Your task to perform on an android device: delete browsing data in the chrome app Image 0: 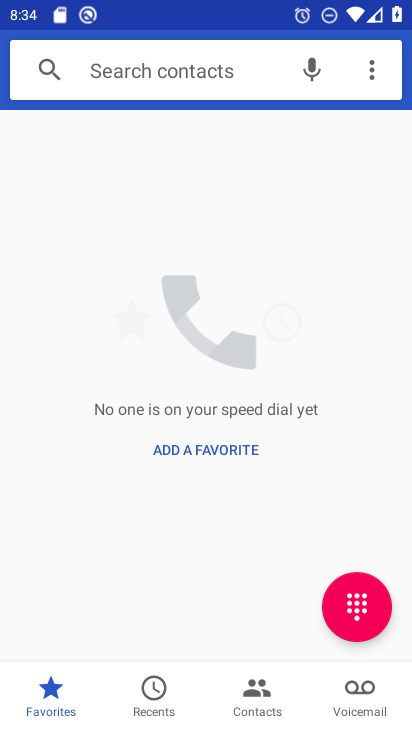
Step 0: press home button
Your task to perform on an android device: delete browsing data in the chrome app Image 1: 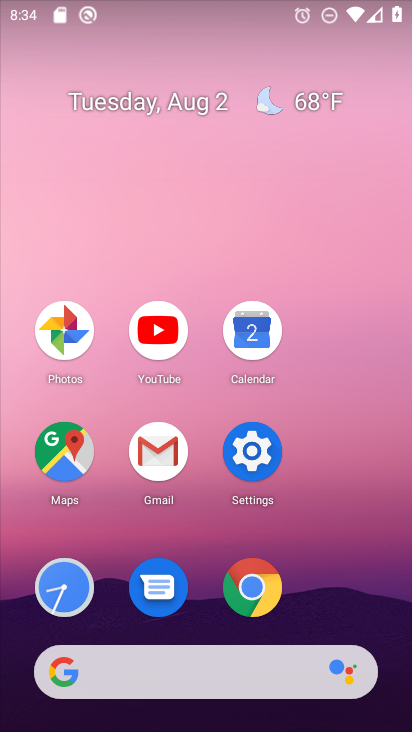
Step 1: click (255, 586)
Your task to perform on an android device: delete browsing data in the chrome app Image 2: 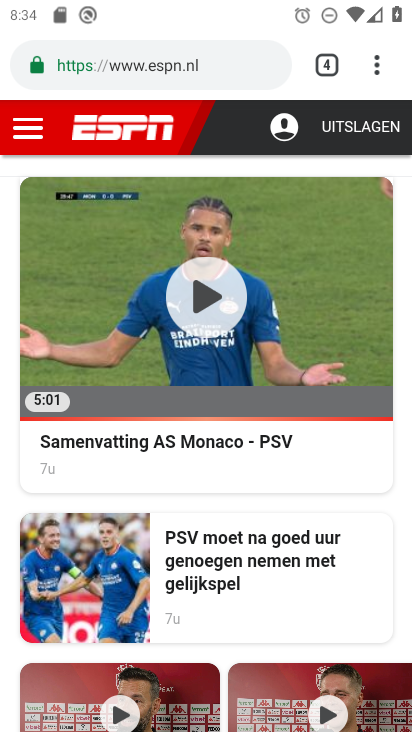
Step 2: click (374, 62)
Your task to perform on an android device: delete browsing data in the chrome app Image 3: 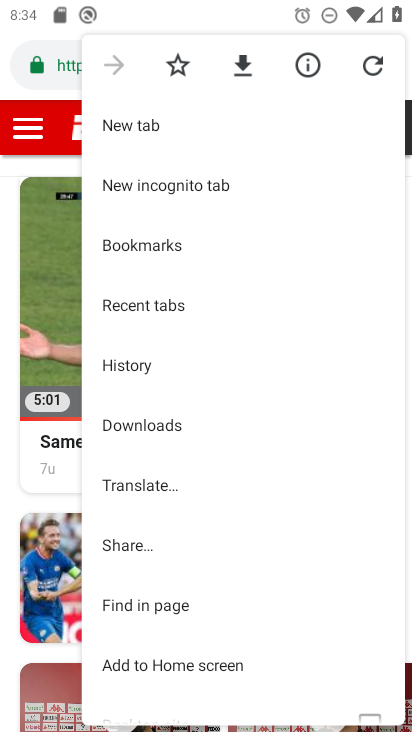
Step 3: click (125, 358)
Your task to perform on an android device: delete browsing data in the chrome app Image 4: 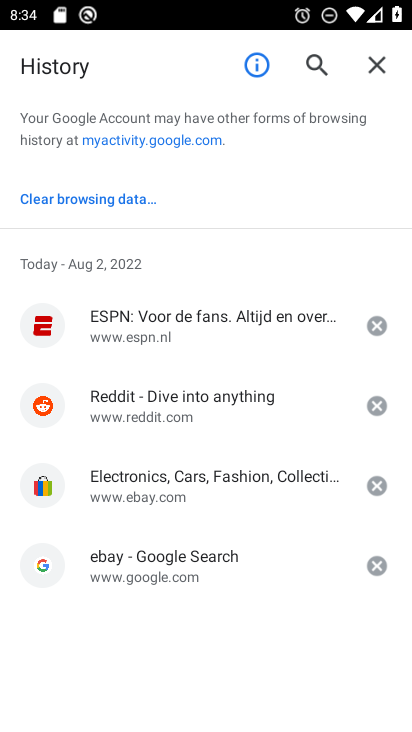
Step 4: click (100, 191)
Your task to perform on an android device: delete browsing data in the chrome app Image 5: 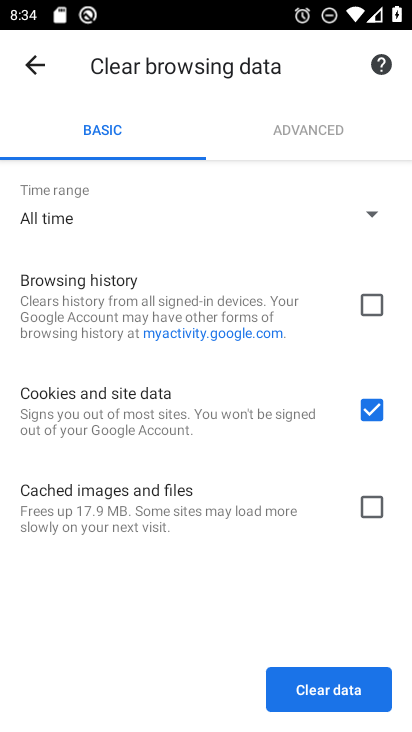
Step 5: click (365, 306)
Your task to perform on an android device: delete browsing data in the chrome app Image 6: 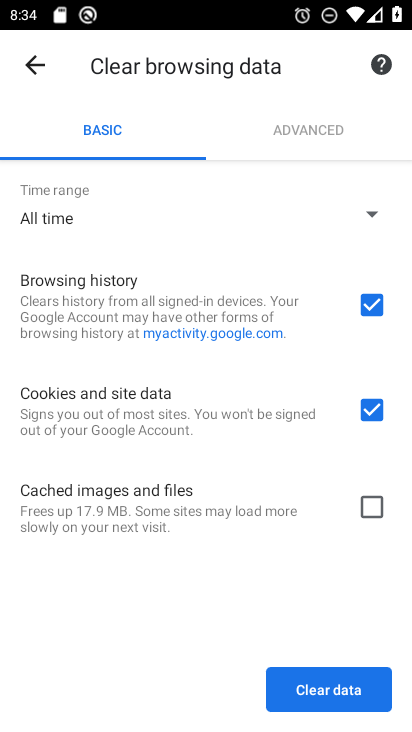
Step 6: click (374, 412)
Your task to perform on an android device: delete browsing data in the chrome app Image 7: 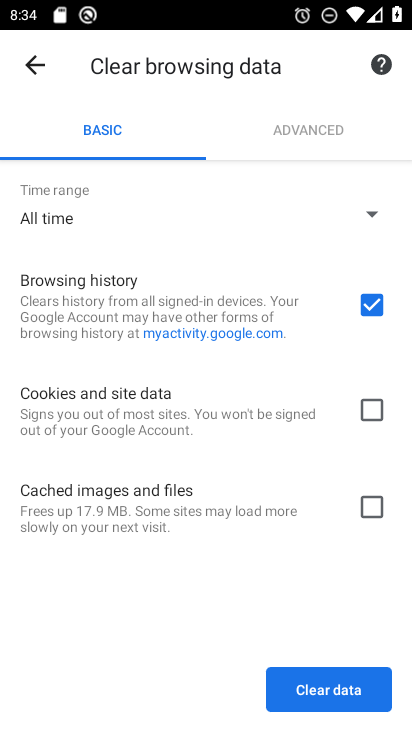
Step 7: click (338, 693)
Your task to perform on an android device: delete browsing data in the chrome app Image 8: 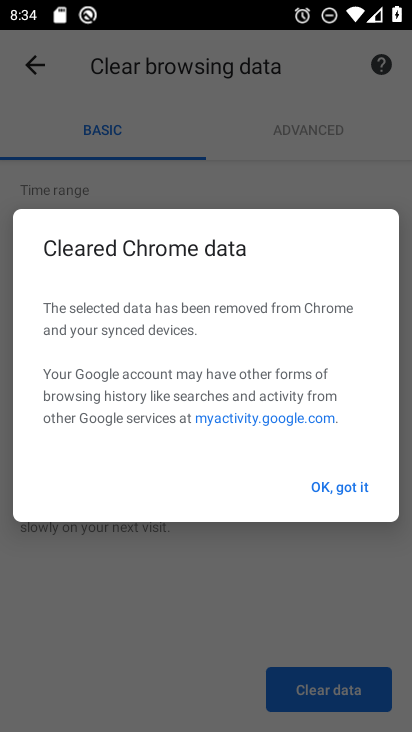
Step 8: click (346, 488)
Your task to perform on an android device: delete browsing data in the chrome app Image 9: 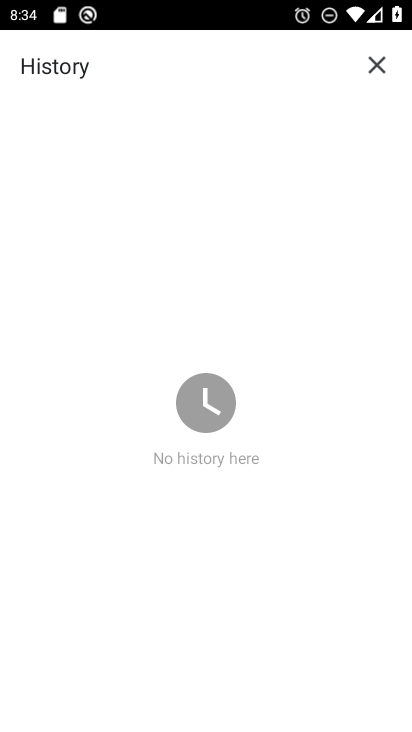
Step 9: task complete